Your task to perform on an android device: open chrome privacy settings Image 0: 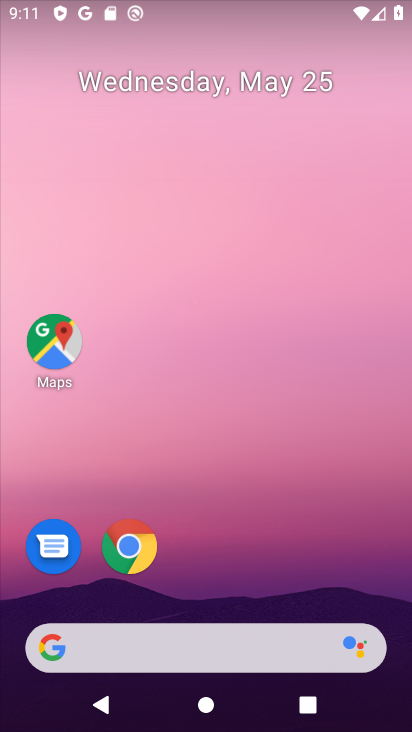
Step 0: click (127, 558)
Your task to perform on an android device: open chrome privacy settings Image 1: 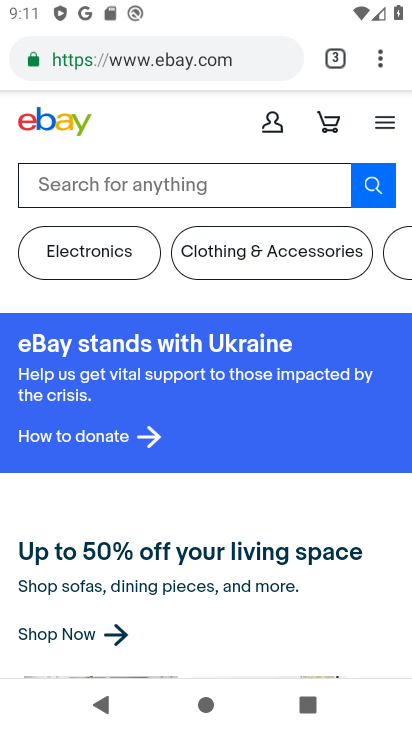
Step 1: drag from (393, 58) to (242, 576)
Your task to perform on an android device: open chrome privacy settings Image 2: 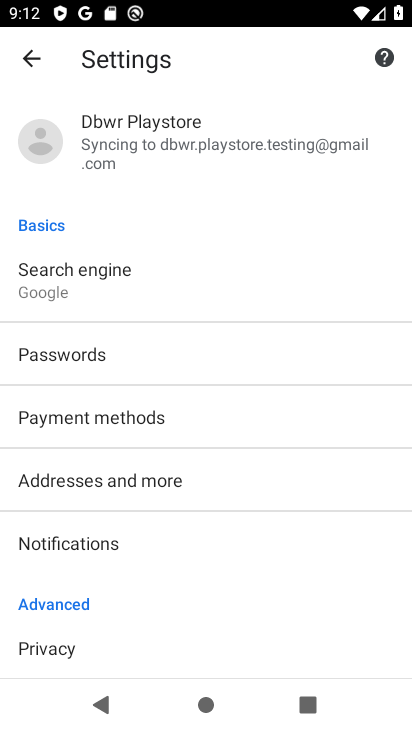
Step 2: drag from (173, 686) to (224, 484)
Your task to perform on an android device: open chrome privacy settings Image 3: 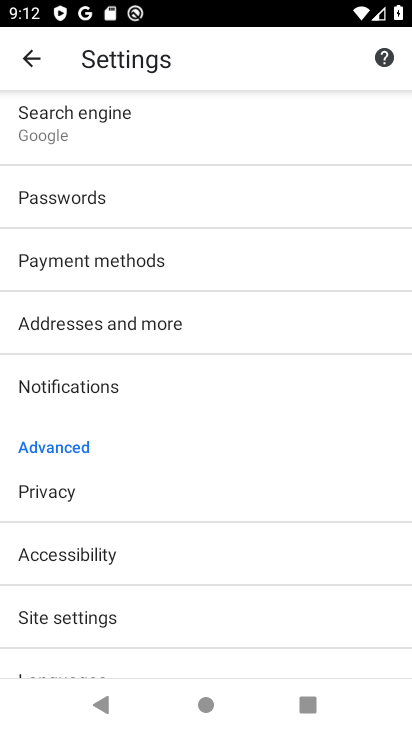
Step 3: click (126, 497)
Your task to perform on an android device: open chrome privacy settings Image 4: 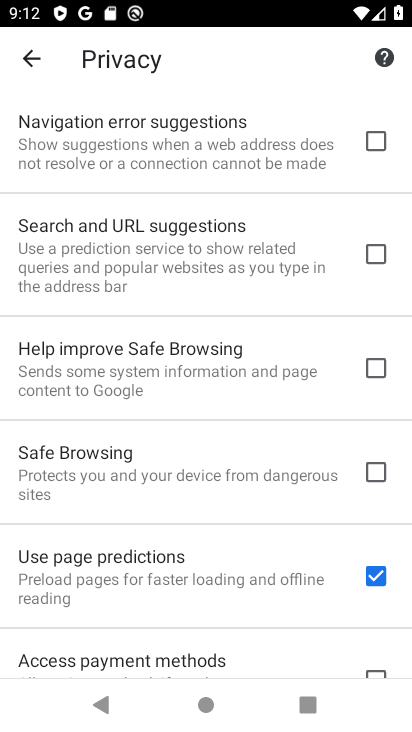
Step 4: task complete